Your task to perform on an android device: open app "Messenger Lite" Image 0: 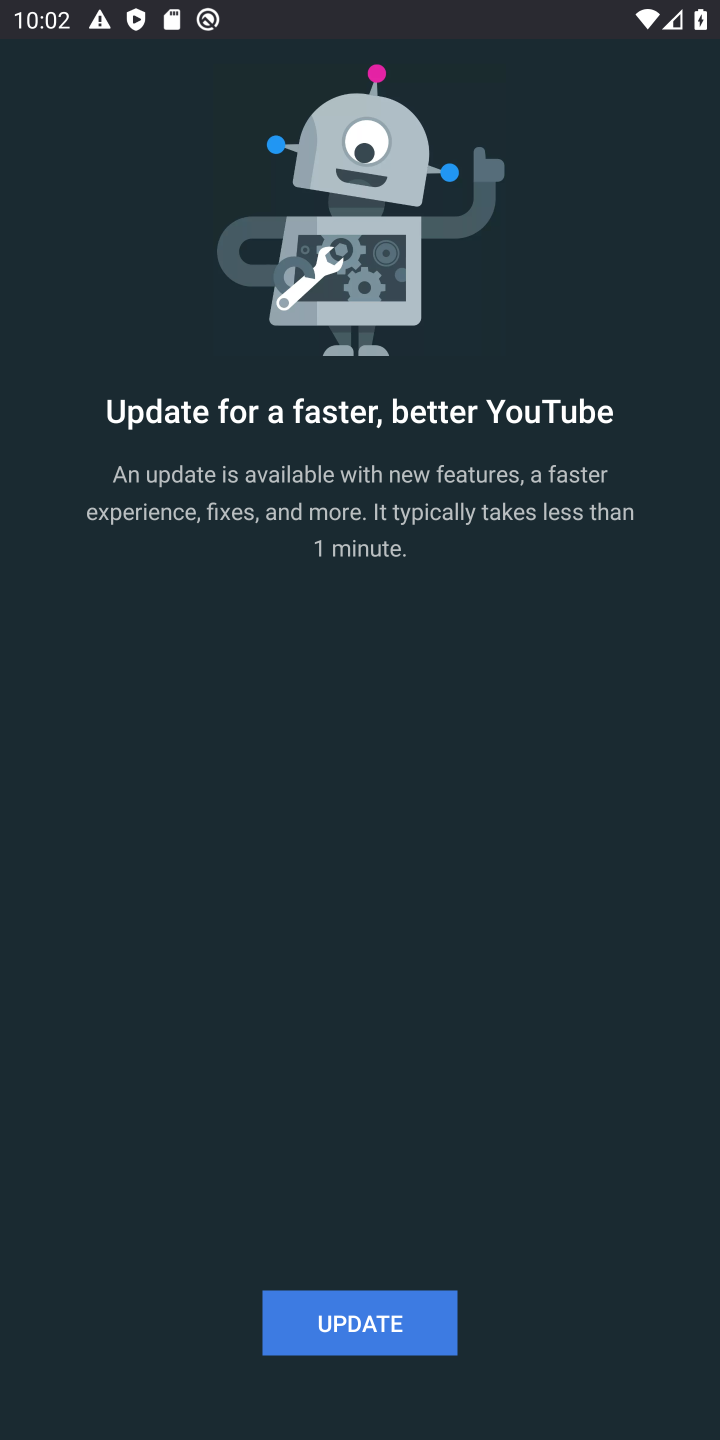
Step 0: press home button
Your task to perform on an android device: open app "Messenger Lite" Image 1: 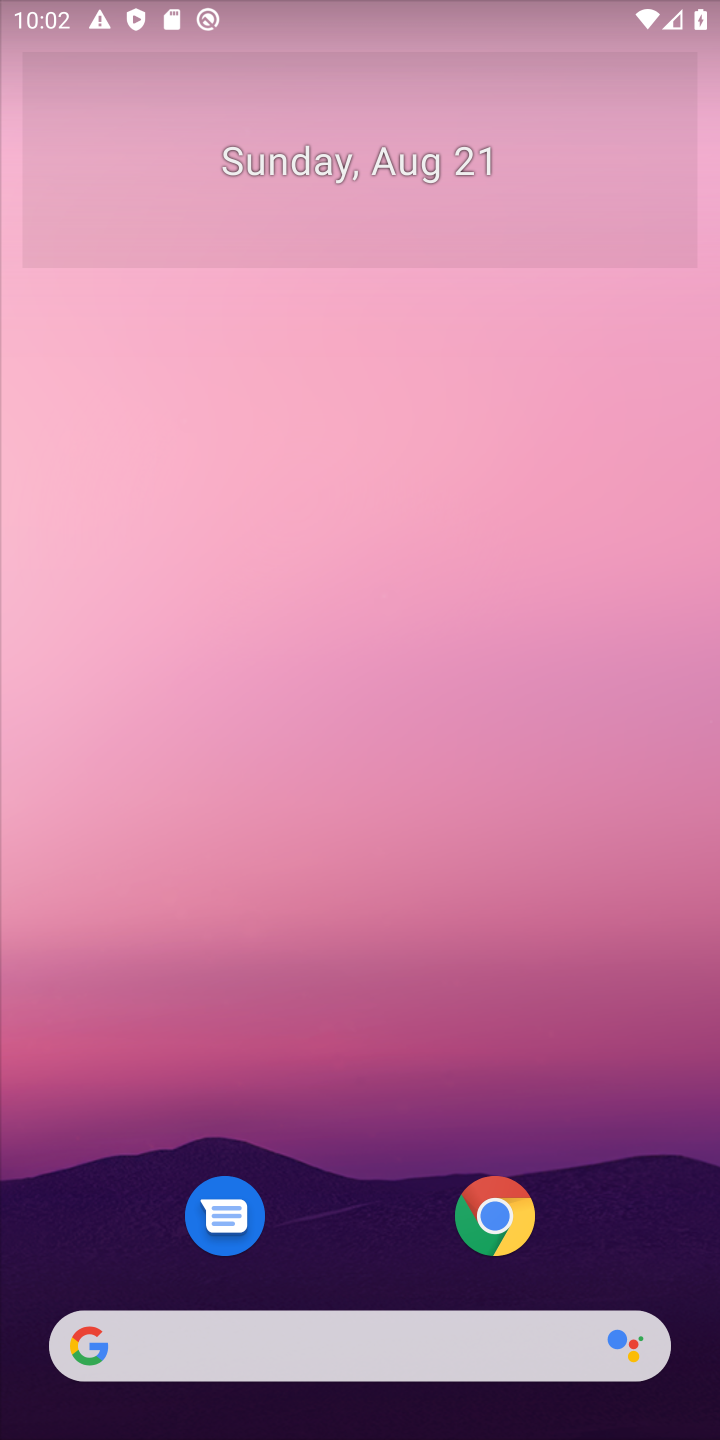
Step 1: drag from (421, 1042) to (203, 1)
Your task to perform on an android device: open app "Messenger Lite" Image 2: 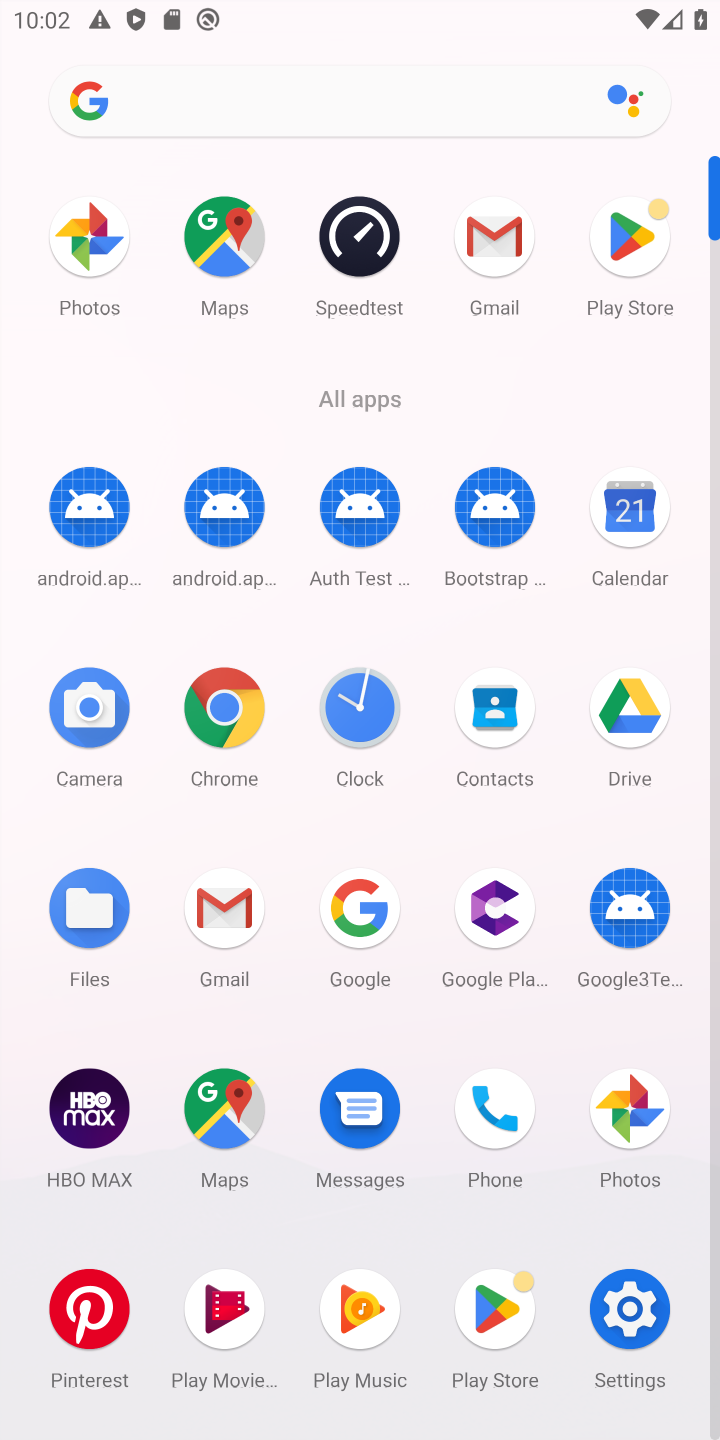
Step 2: click (644, 246)
Your task to perform on an android device: open app "Messenger Lite" Image 3: 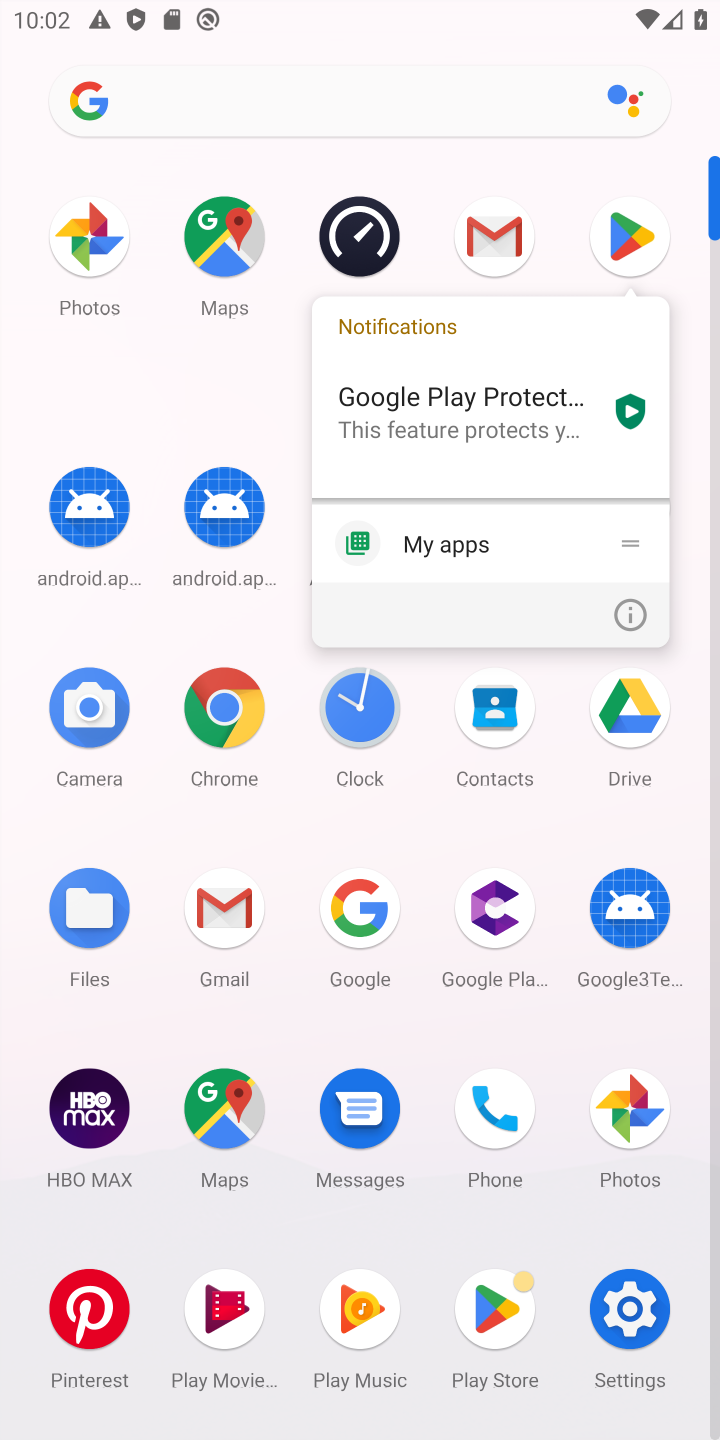
Step 3: click (611, 252)
Your task to perform on an android device: open app "Messenger Lite" Image 4: 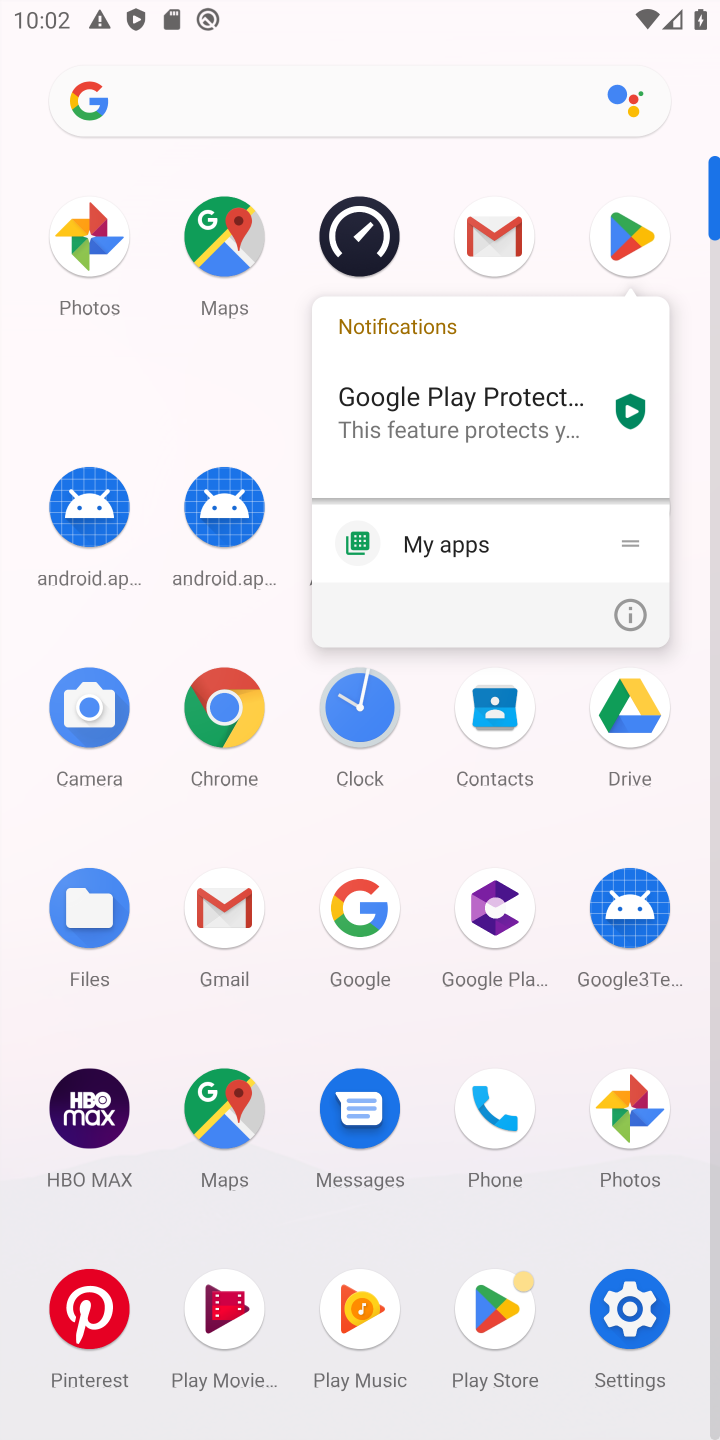
Step 4: click (628, 238)
Your task to perform on an android device: open app "Messenger Lite" Image 5: 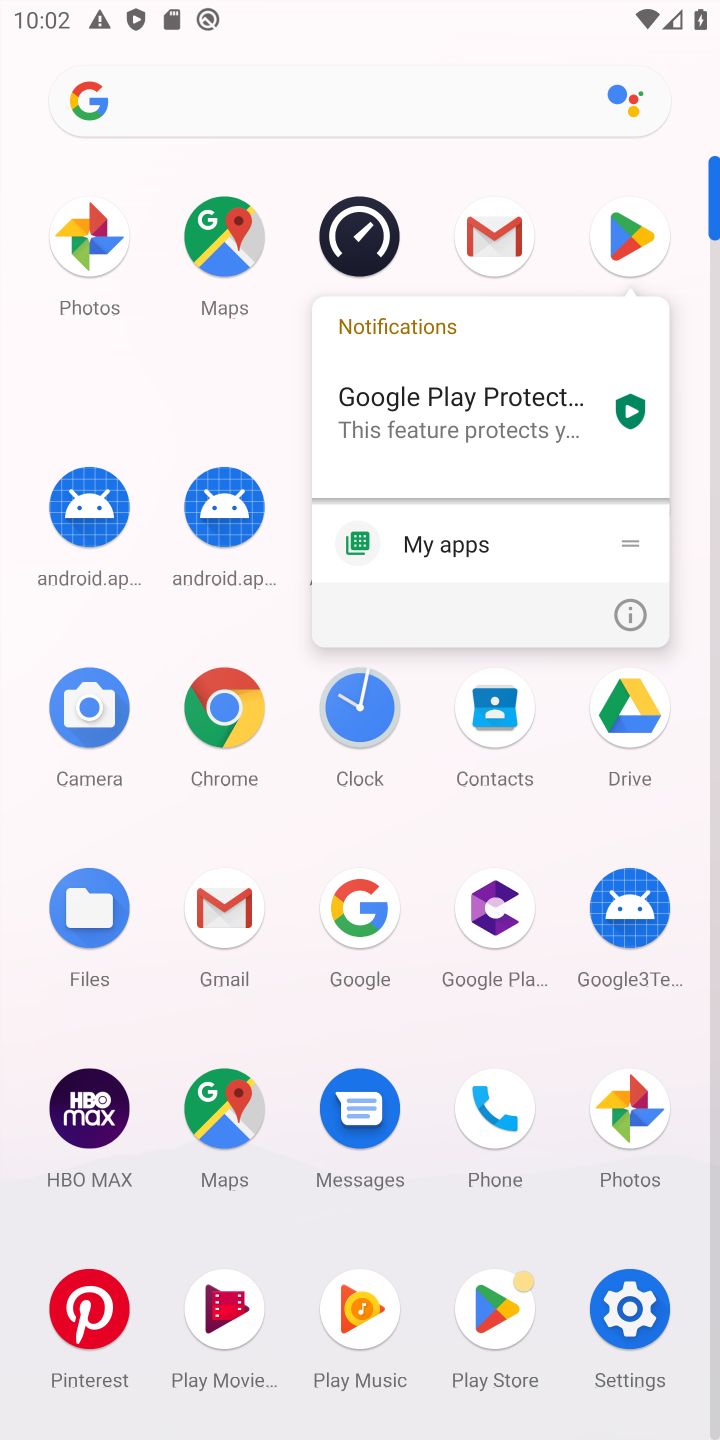
Step 5: click (601, 263)
Your task to perform on an android device: open app "Messenger Lite" Image 6: 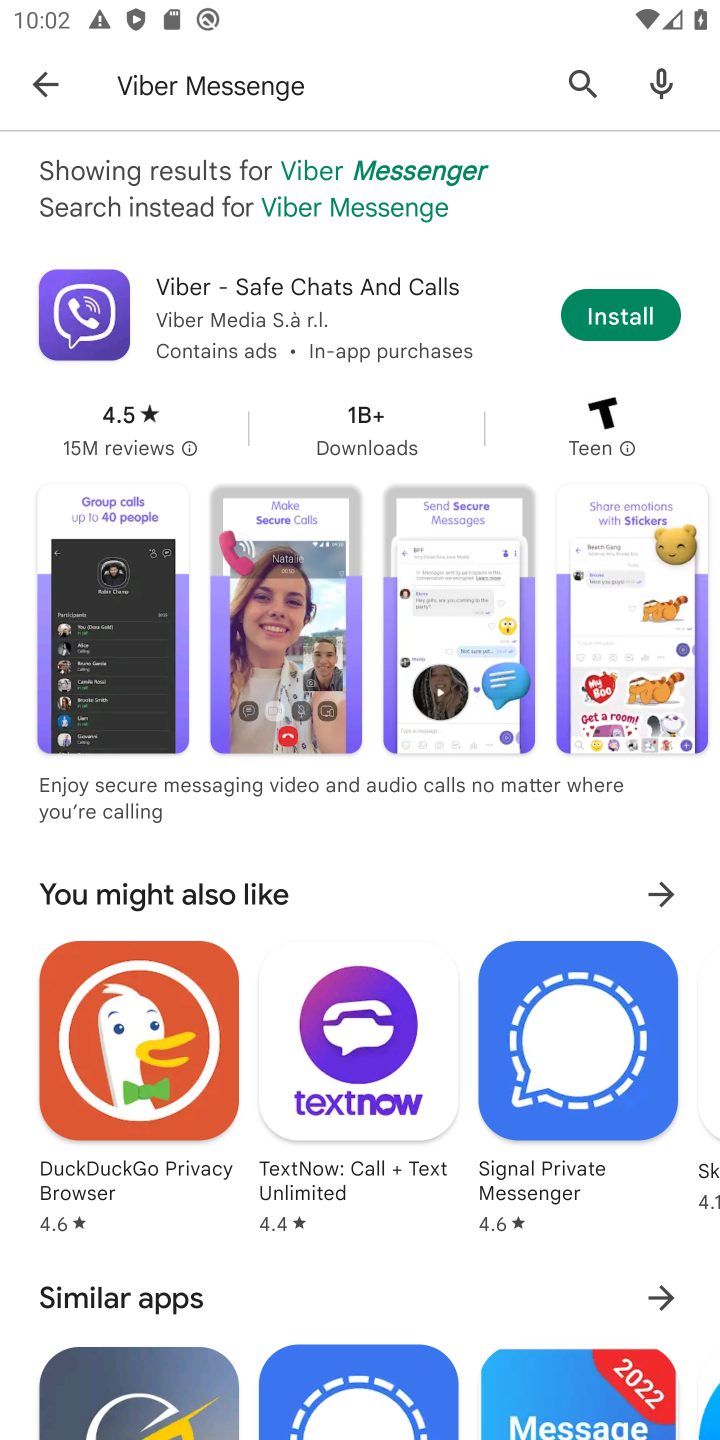
Step 6: press back button
Your task to perform on an android device: open app "Messenger Lite" Image 7: 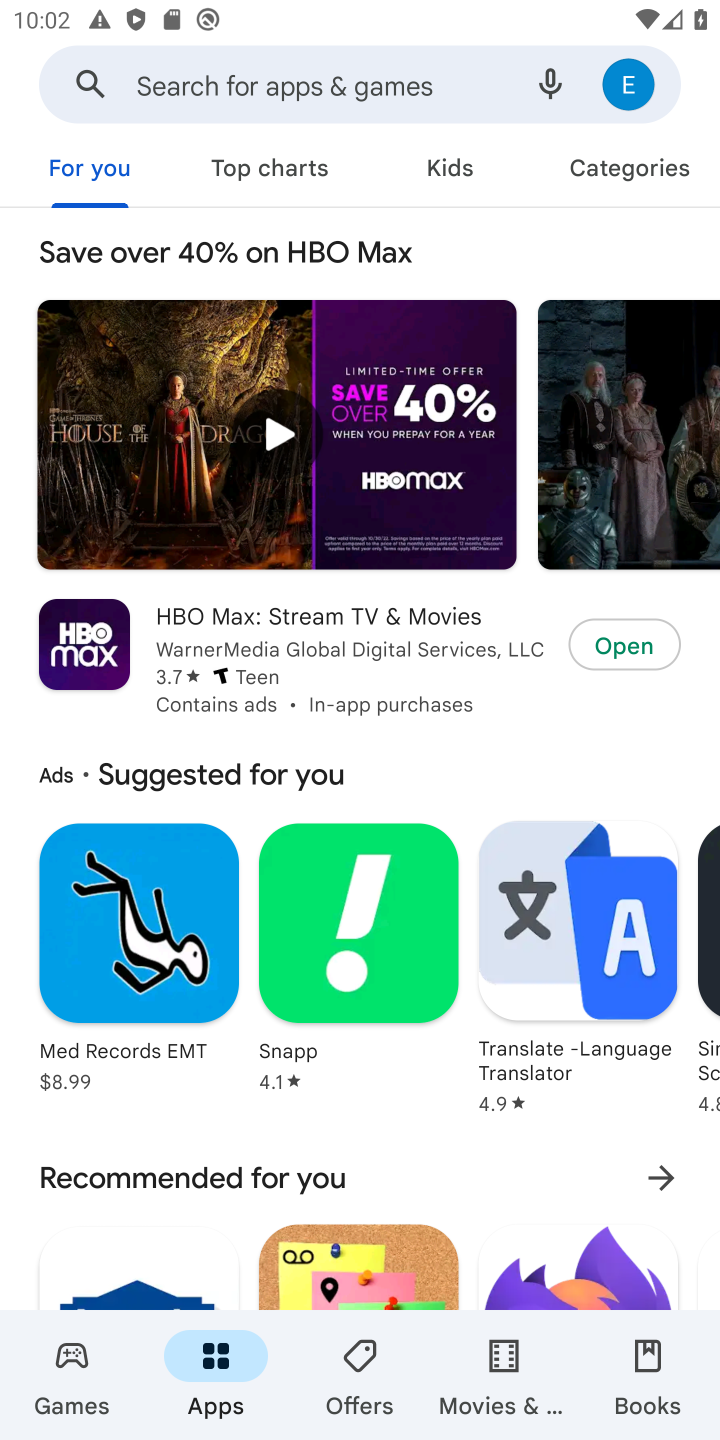
Step 7: click (326, 68)
Your task to perform on an android device: open app "Messenger Lite" Image 8: 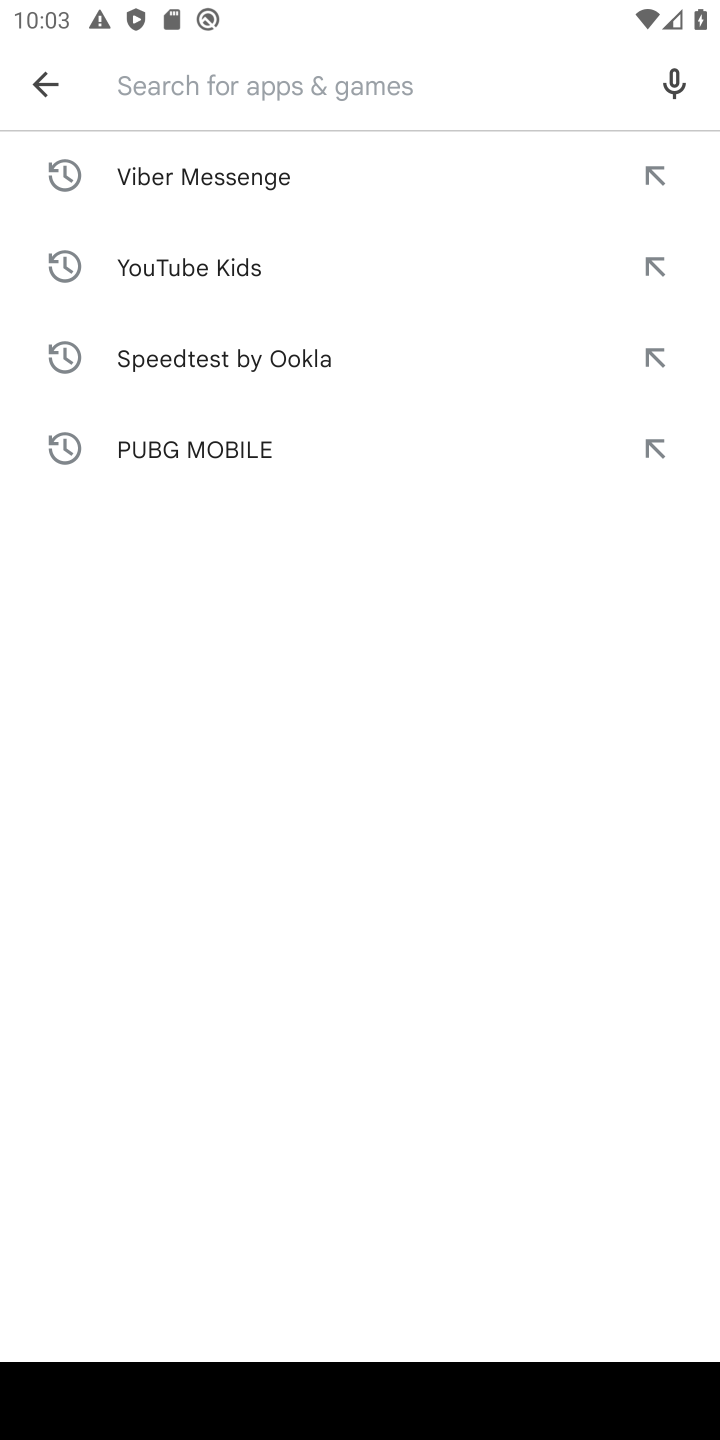
Step 8: type "Messenger Lite"
Your task to perform on an android device: open app "Messenger Lite" Image 9: 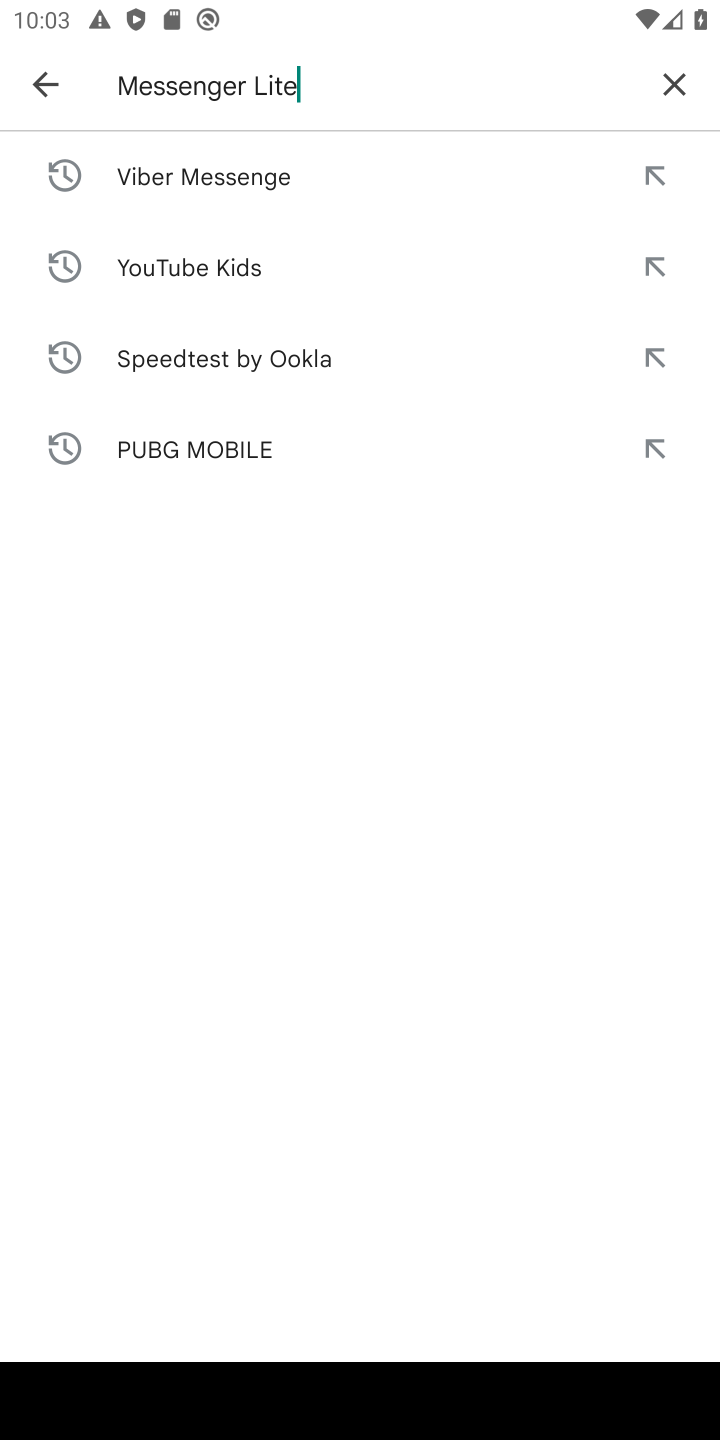
Step 9: press enter
Your task to perform on an android device: open app "Messenger Lite" Image 10: 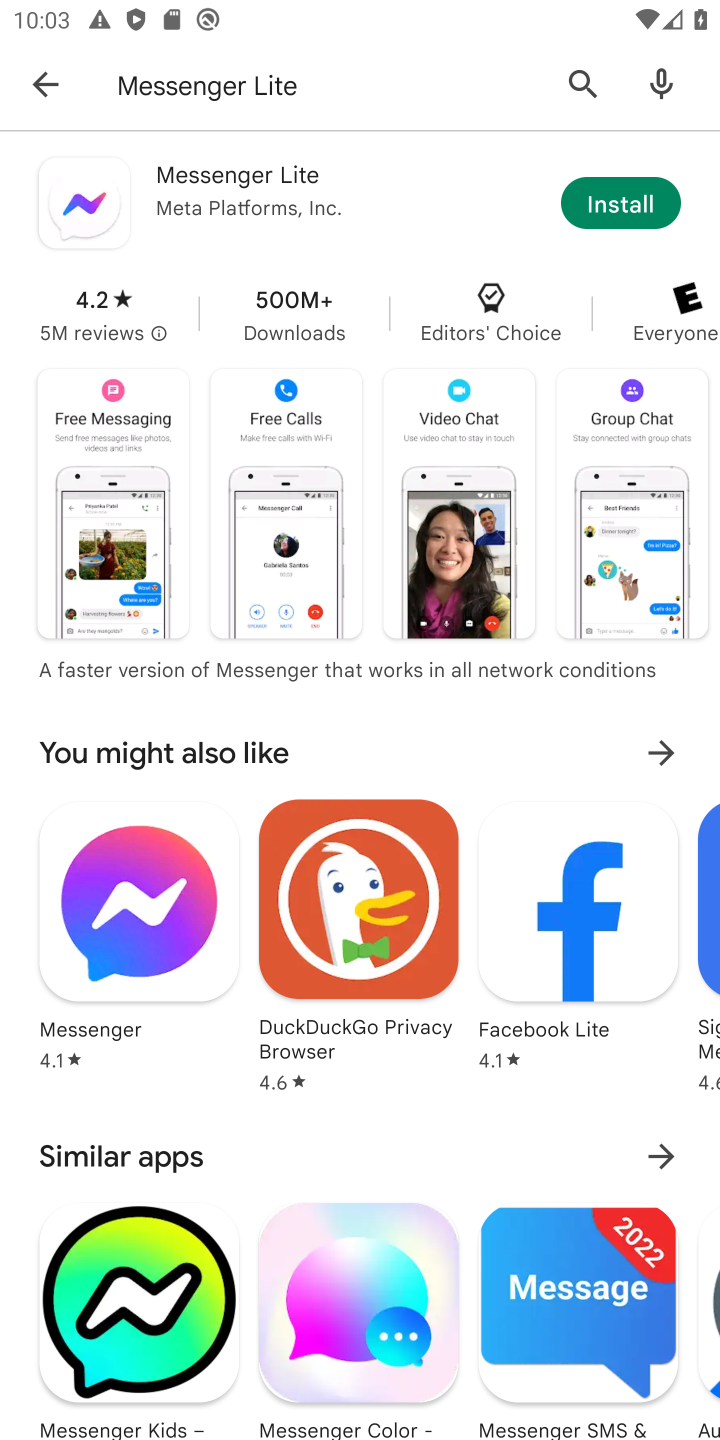
Step 10: task complete